Your task to perform on an android device: delete browsing data in the chrome app Image 0: 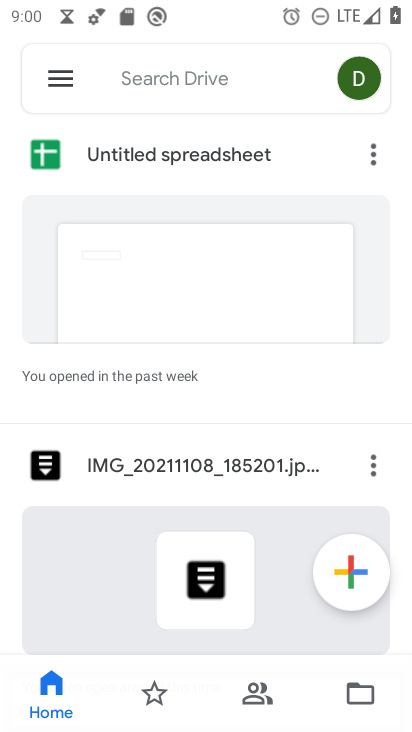
Step 0: press home button
Your task to perform on an android device: delete browsing data in the chrome app Image 1: 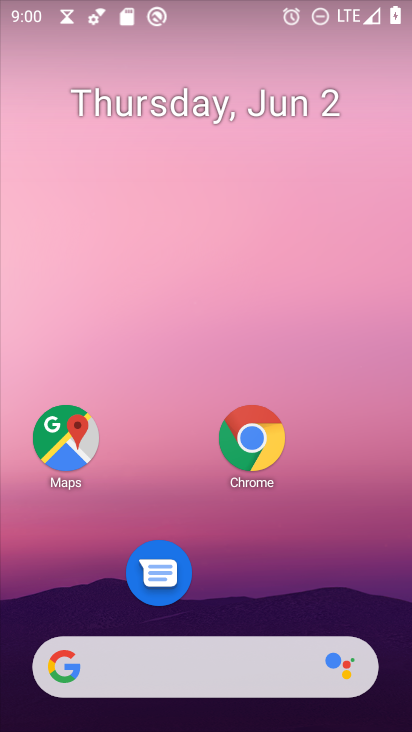
Step 1: click (256, 452)
Your task to perform on an android device: delete browsing data in the chrome app Image 2: 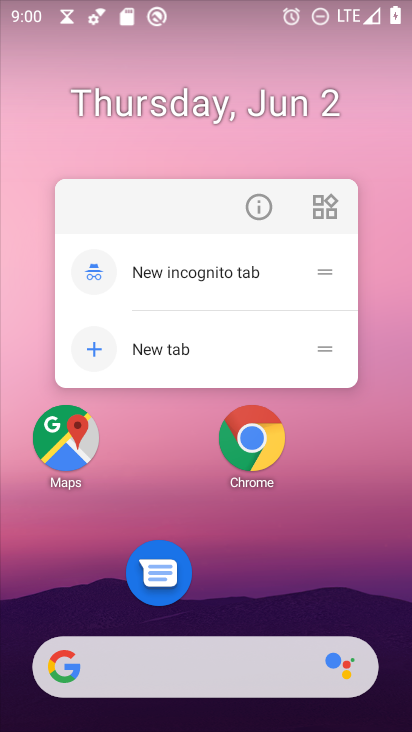
Step 2: click (253, 441)
Your task to perform on an android device: delete browsing data in the chrome app Image 3: 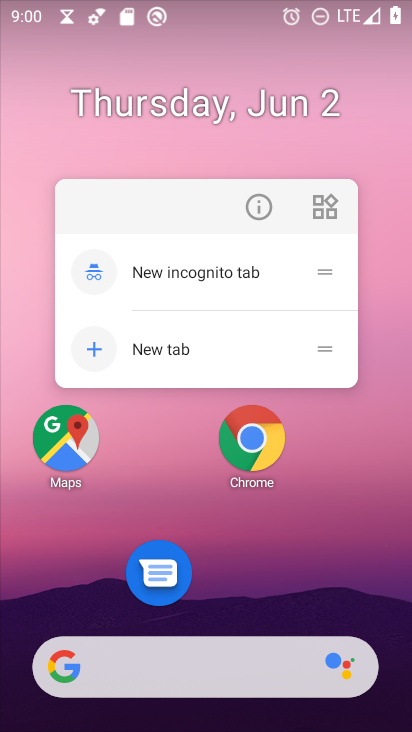
Step 3: click (248, 454)
Your task to perform on an android device: delete browsing data in the chrome app Image 4: 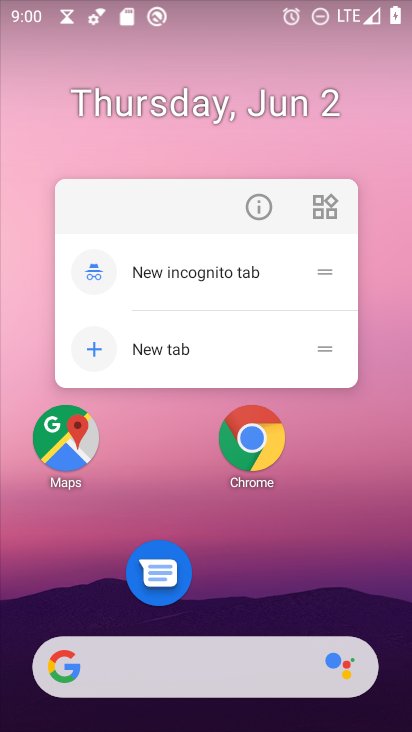
Step 4: click (245, 455)
Your task to perform on an android device: delete browsing data in the chrome app Image 5: 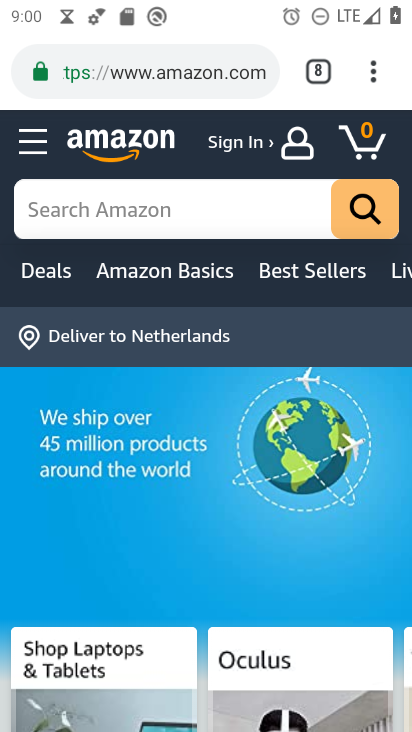
Step 5: drag from (370, 72) to (222, 563)
Your task to perform on an android device: delete browsing data in the chrome app Image 6: 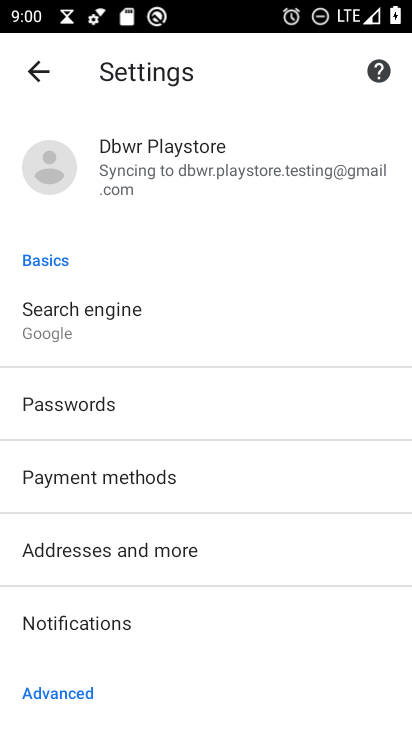
Step 6: drag from (185, 644) to (309, 361)
Your task to perform on an android device: delete browsing data in the chrome app Image 7: 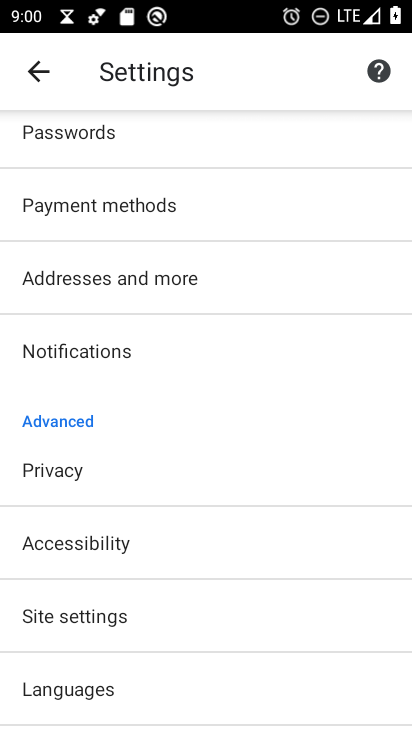
Step 7: click (67, 473)
Your task to perform on an android device: delete browsing data in the chrome app Image 8: 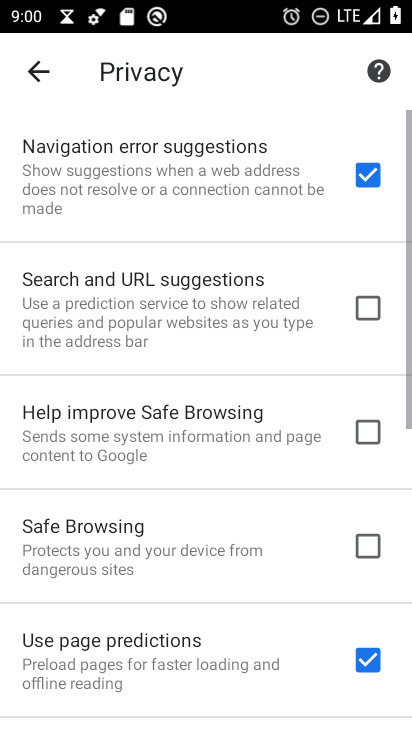
Step 8: drag from (188, 678) to (354, 139)
Your task to perform on an android device: delete browsing data in the chrome app Image 9: 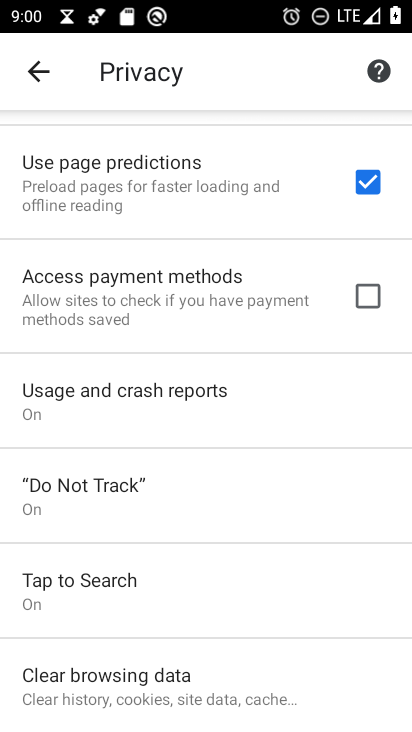
Step 9: click (173, 686)
Your task to perform on an android device: delete browsing data in the chrome app Image 10: 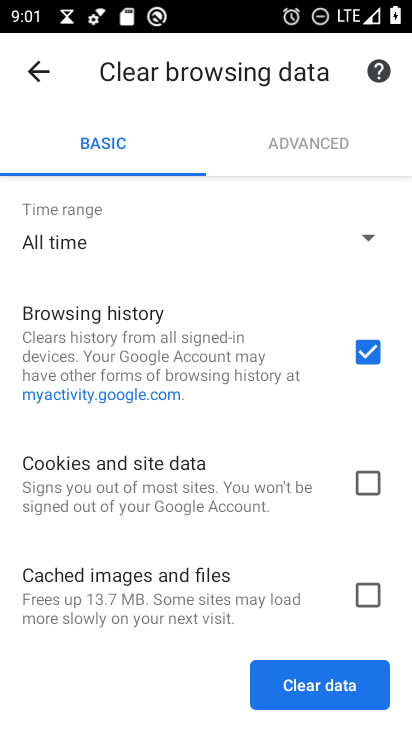
Step 10: click (369, 477)
Your task to perform on an android device: delete browsing data in the chrome app Image 11: 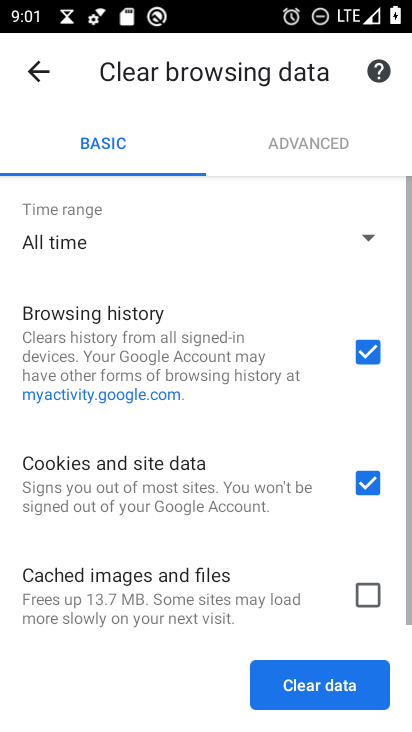
Step 11: click (371, 597)
Your task to perform on an android device: delete browsing data in the chrome app Image 12: 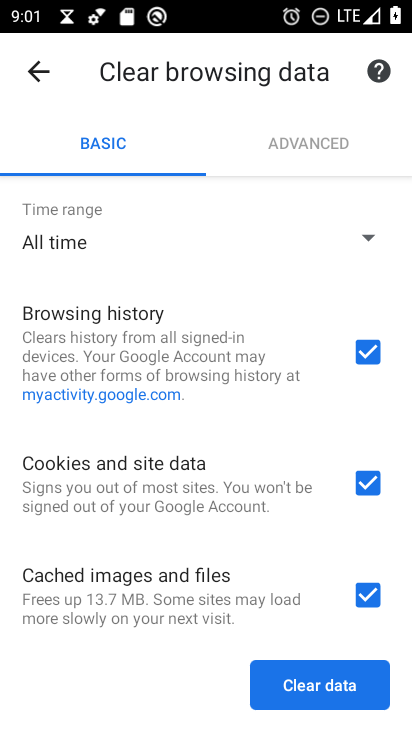
Step 12: click (331, 690)
Your task to perform on an android device: delete browsing data in the chrome app Image 13: 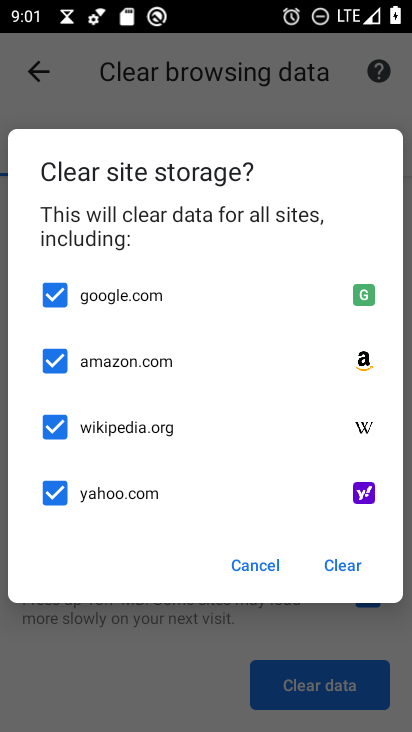
Step 13: click (346, 567)
Your task to perform on an android device: delete browsing data in the chrome app Image 14: 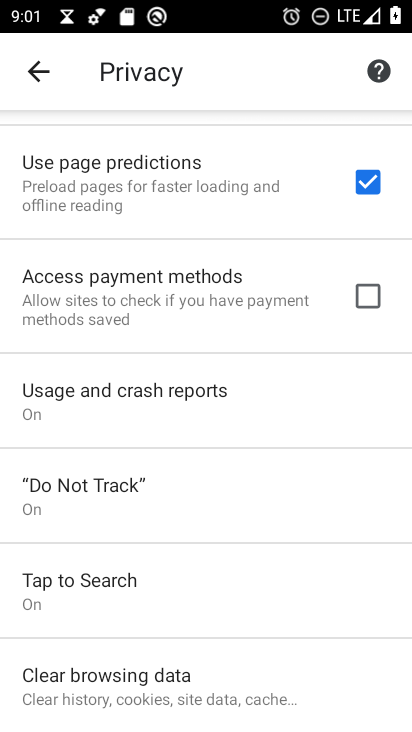
Step 14: task complete